Your task to perform on an android device: delete the emails in spam in the gmail app Image 0: 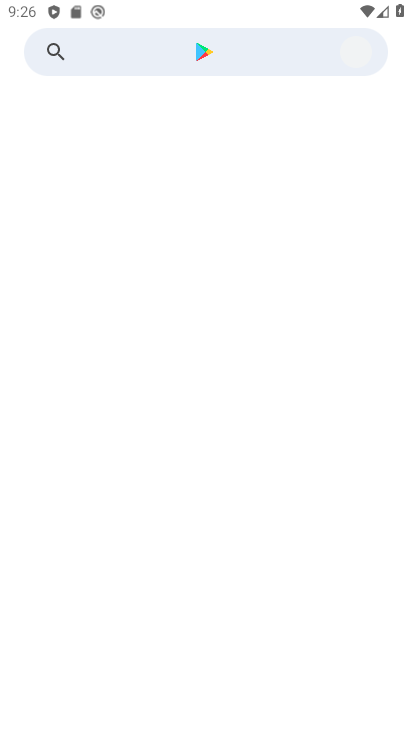
Step 0: press home button
Your task to perform on an android device: delete the emails in spam in the gmail app Image 1: 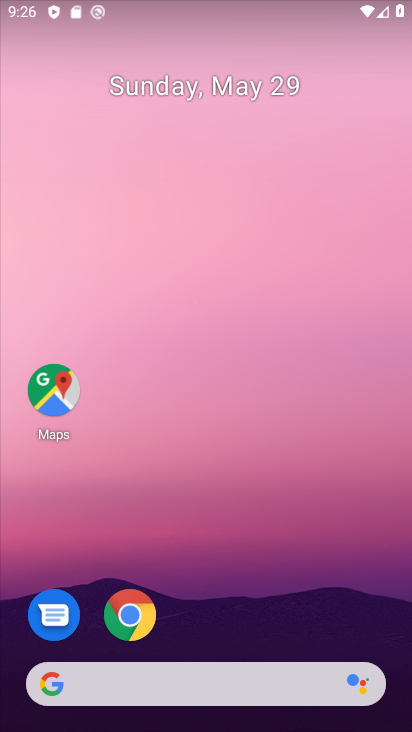
Step 1: drag from (214, 646) to (133, 9)
Your task to perform on an android device: delete the emails in spam in the gmail app Image 2: 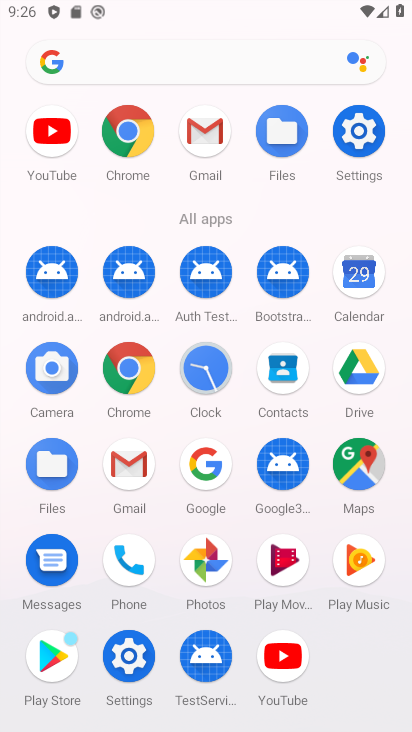
Step 2: click (135, 467)
Your task to perform on an android device: delete the emails in spam in the gmail app Image 3: 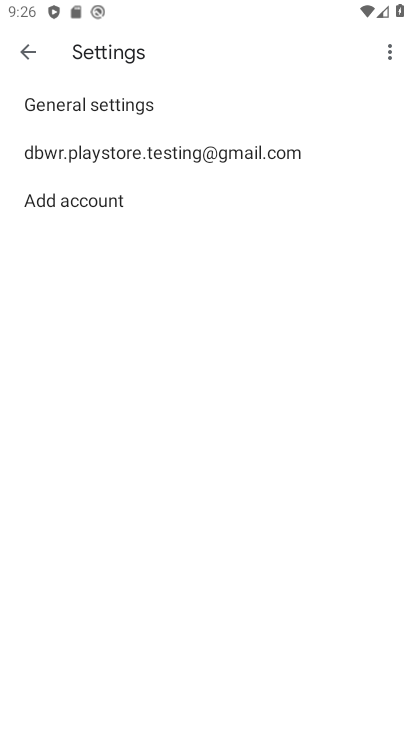
Step 3: click (28, 50)
Your task to perform on an android device: delete the emails in spam in the gmail app Image 4: 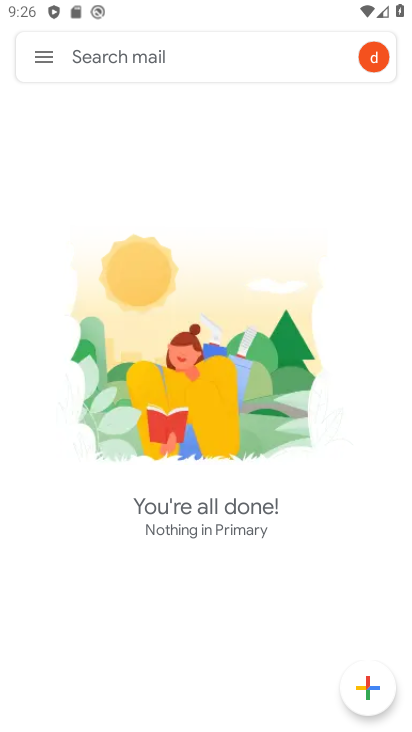
Step 4: click (28, 50)
Your task to perform on an android device: delete the emails in spam in the gmail app Image 5: 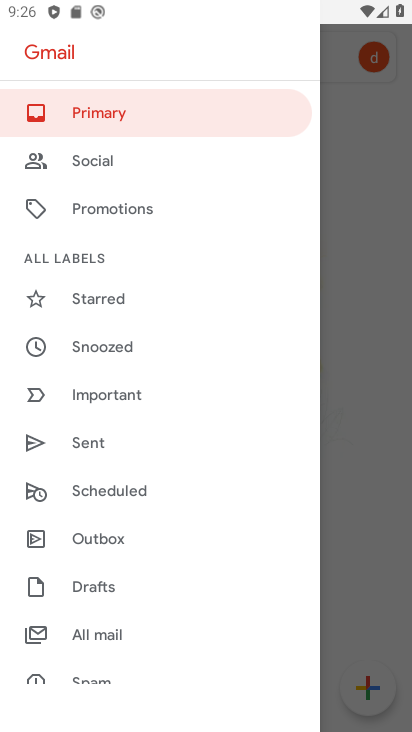
Step 5: drag from (187, 631) to (155, 418)
Your task to perform on an android device: delete the emails in spam in the gmail app Image 6: 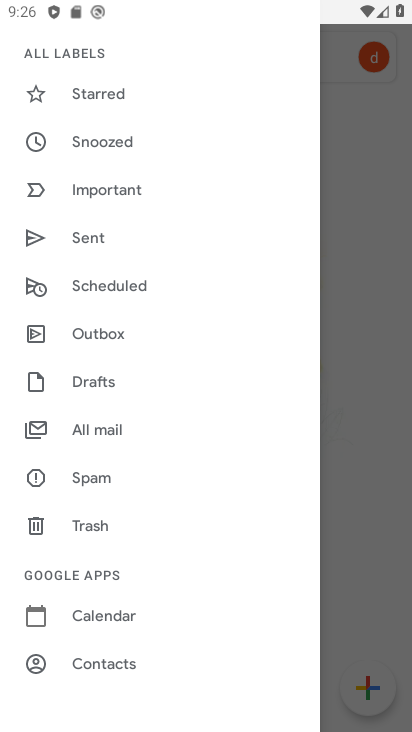
Step 6: click (70, 467)
Your task to perform on an android device: delete the emails in spam in the gmail app Image 7: 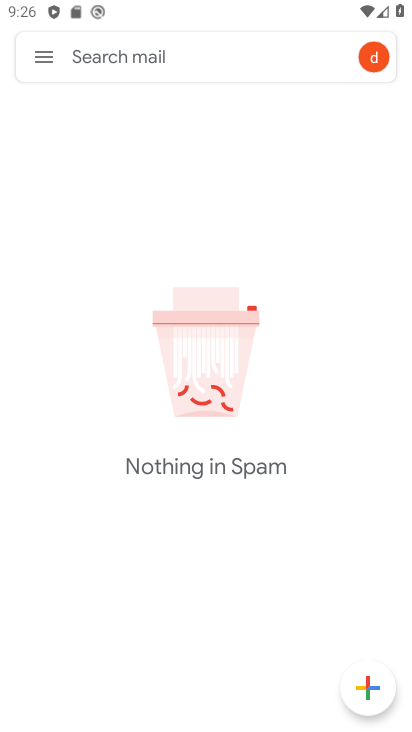
Step 7: task complete